Your task to perform on an android device: find photos in the google photos app Image 0: 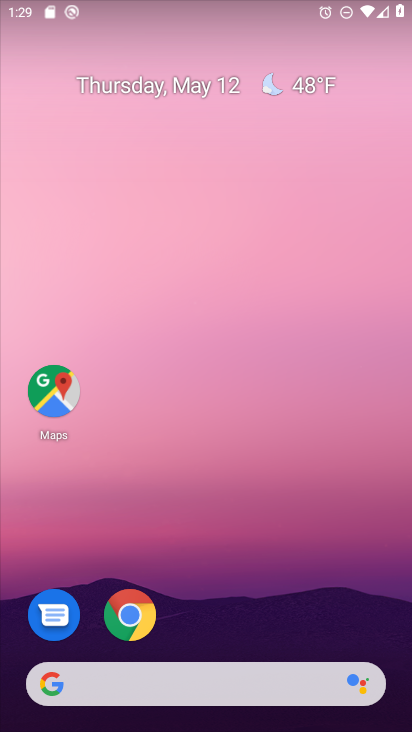
Step 0: drag from (216, 702) to (398, 14)
Your task to perform on an android device: find photos in the google photos app Image 1: 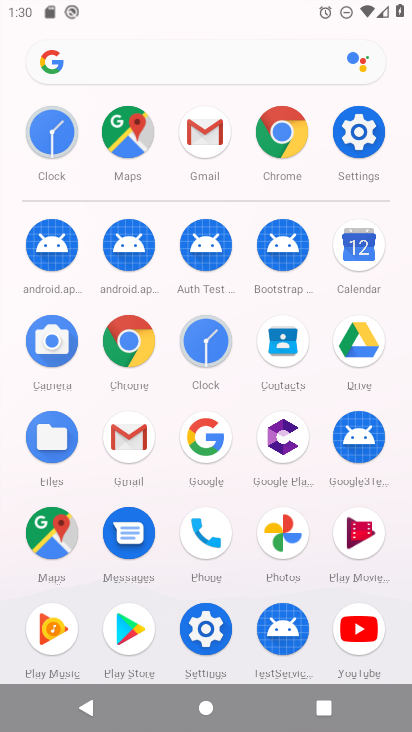
Step 1: click (278, 522)
Your task to perform on an android device: find photos in the google photos app Image 2: 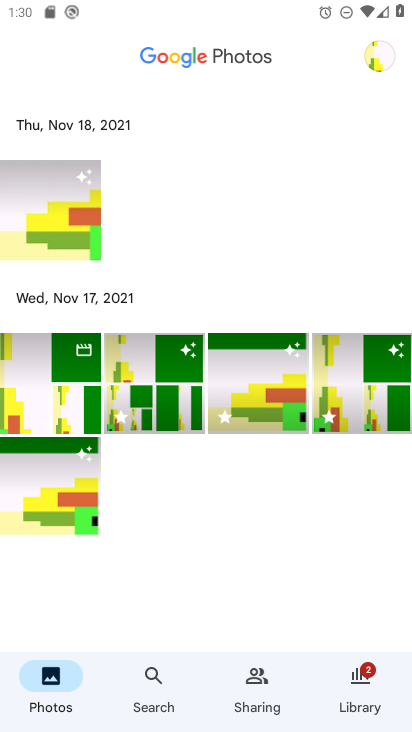
Step 2: task complete